Your task to perform on an android device: toggle location history Image 0: 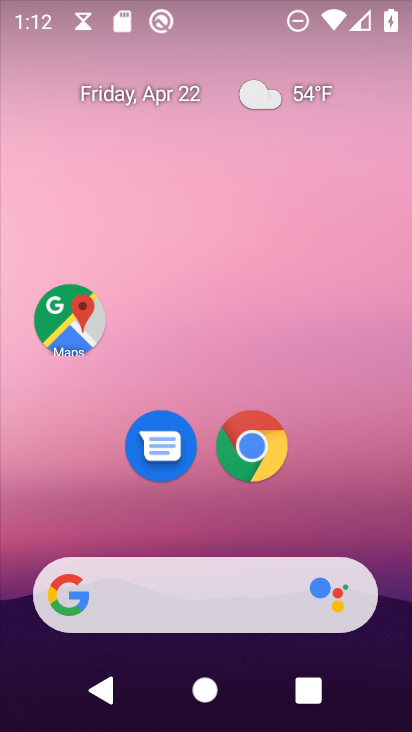
Step 0: drag from (389, 520) to (300, 165)
Your task to perform on an android device: toggle location history Image 1: 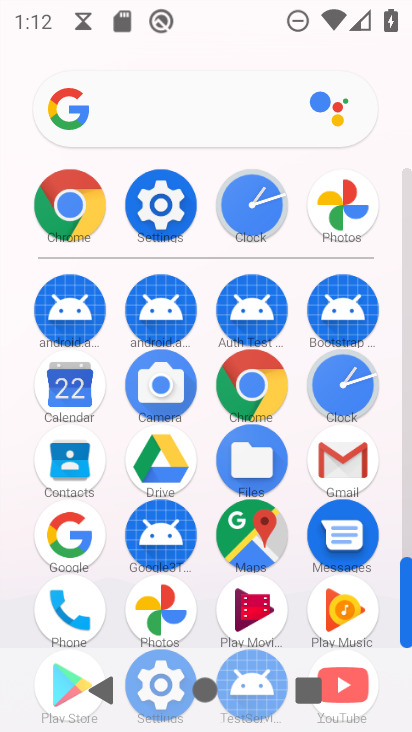
Step 1: click (249, 519)
Your task to perform on an android device: toggle location history Image 2: 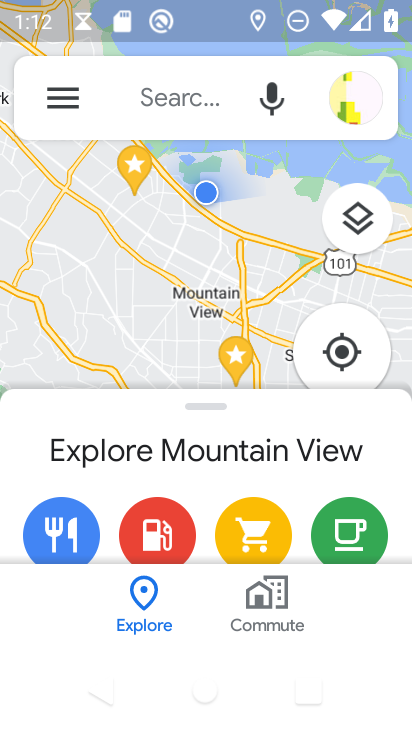
Step 2: click (68, 117)
Your task to perform on an android device: toggle location history Image 3: 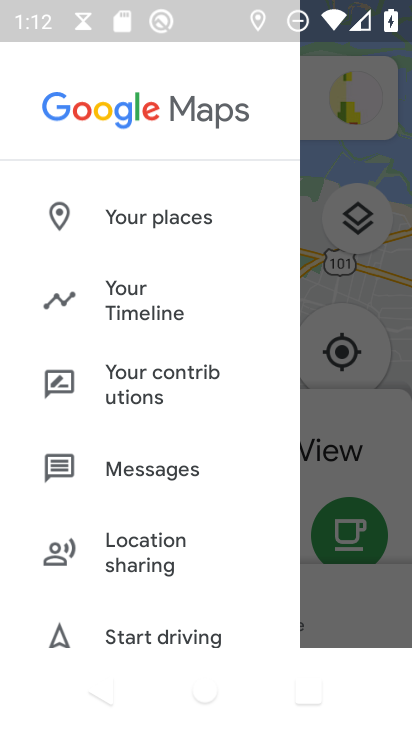
Step 3: click (141, 308)
Your task to perform on an android device: toggle location history Image 4: 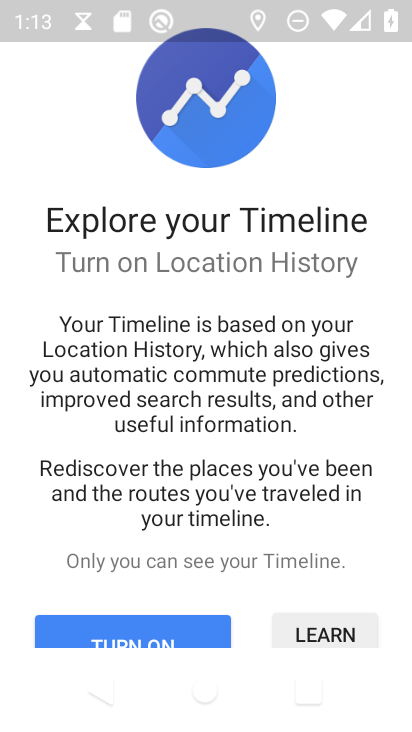
Step 4: drag from (254, 539) to (207, 244)
Your task to perform on an android device: toggle location history Image 5: 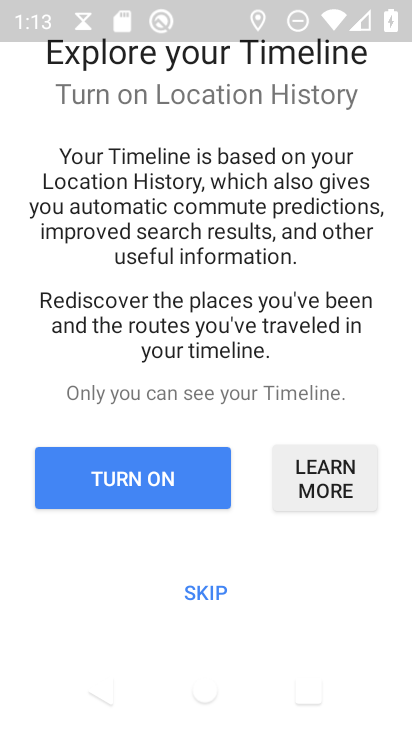
Step 5: click (178, 485)
Your task to perform on an android device: toggle location history Image 6: 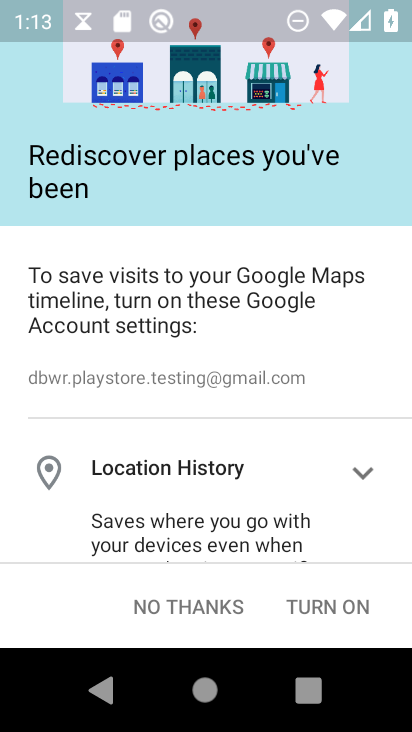
Step 6: drag from (199, 517) to (185, 212)
Your task to perform on an android device: toggle location history Image 7: 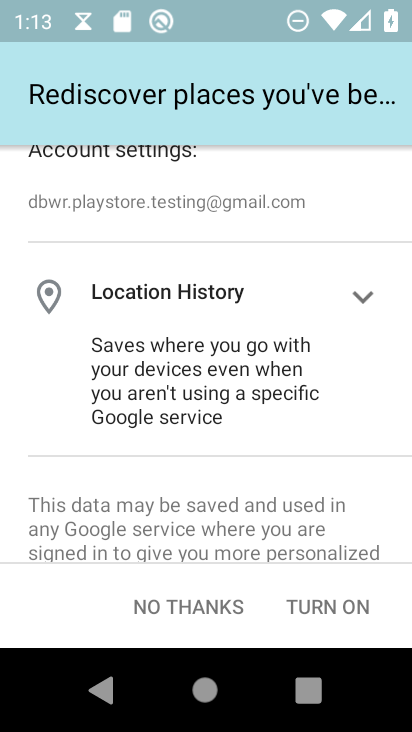
Step 7: drag from (276, 524) to (235, 219)
Your task to perform on an android device: toggle location history Image 8: 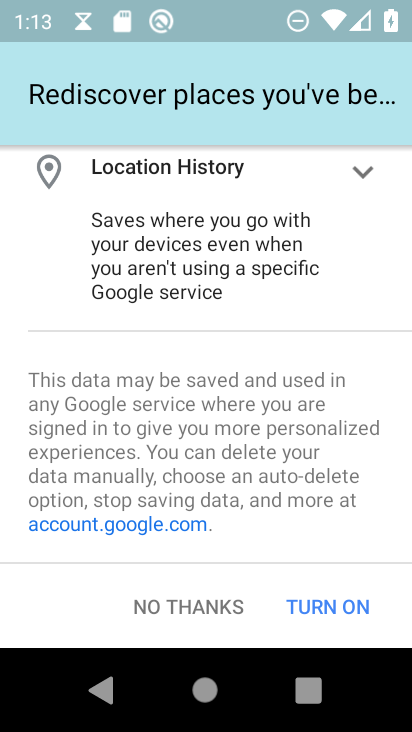
Step 8: click (327, 602)
Your task to perform on an android device: toggle location history Image 9: 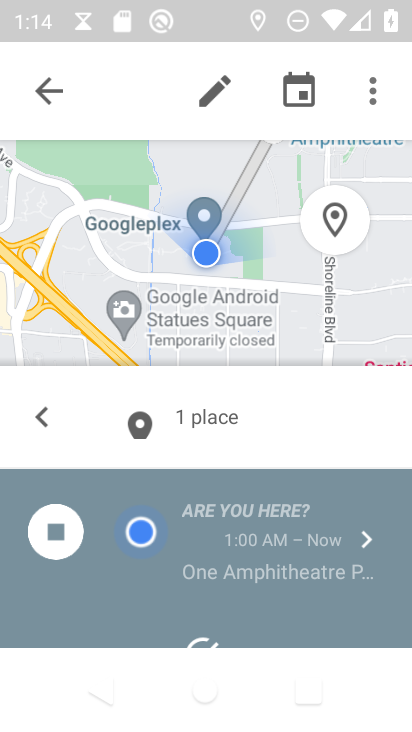
Step 9: task complete